Your task to perform on an android device: toggle javascript in the chrome app Image 0: 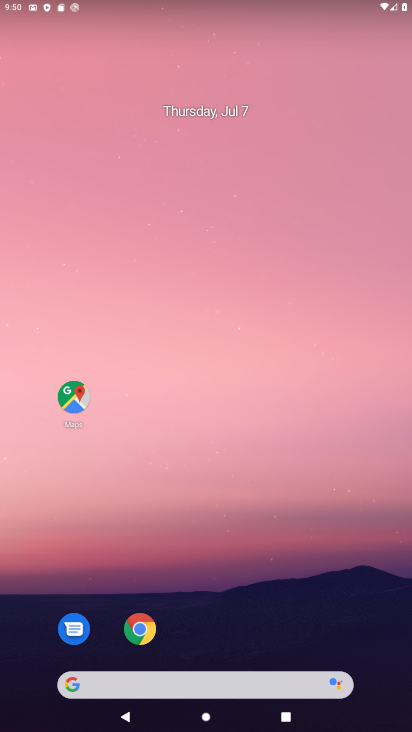
Step 0: drag from (310, 635) to (308, 139)
Your task to perform on an android device: toggle javascript in the chrome app Image 1: 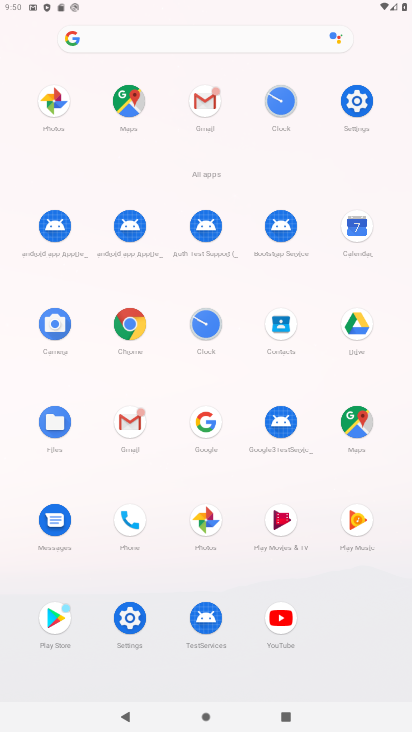
Step 1: click (122, 320)
Your task to perform on an android device: toggle javascript in the chrome app Image 2: 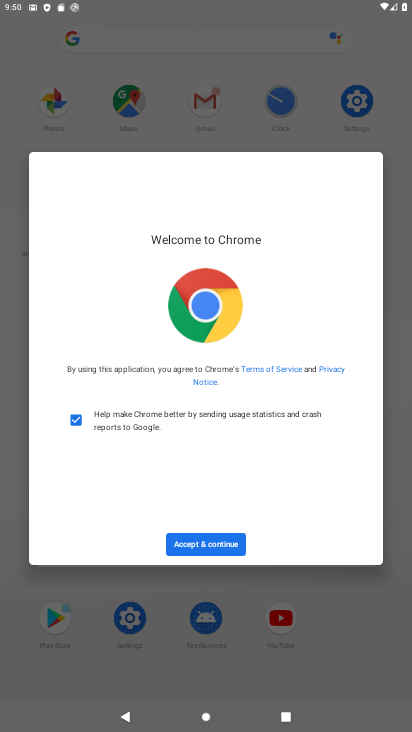
Step 2: click (206, 545)
Your task to perform on an android device: toggle javascript in the chrome app Image 3: 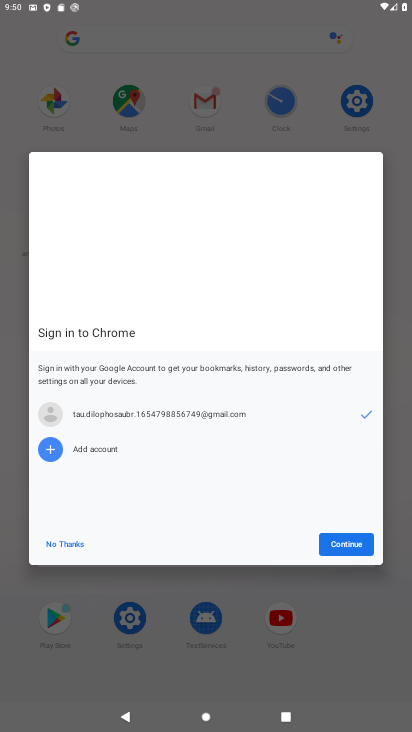
Step 3: click (367, 544)
Your task to perform on an android device: toggle javascript in the chrome app Image 4: 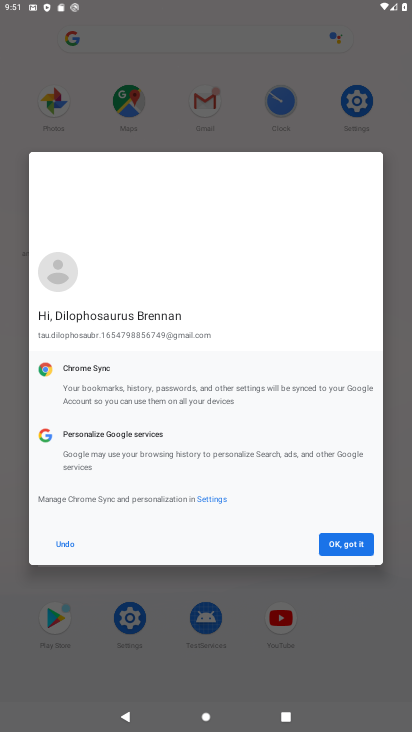
Step 4: click (336, 542)
Your task to perform on an android device: toggle javascript in the chrome app Image 5: 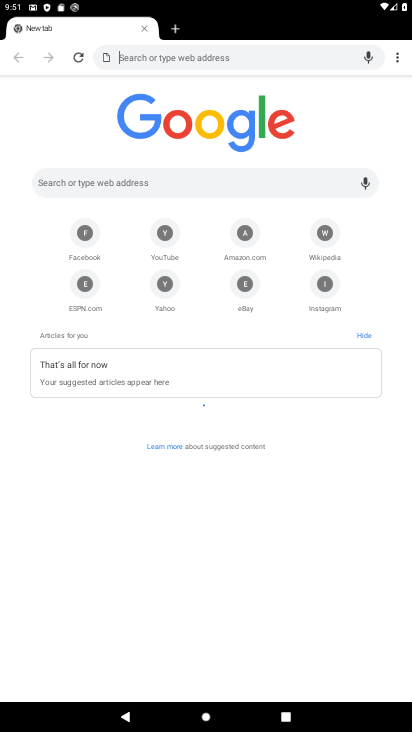
Step 5: drag from (401, 58) to (279, 267)
Your task to perform on an android device: toggle javascript in the chrome app Image 6: 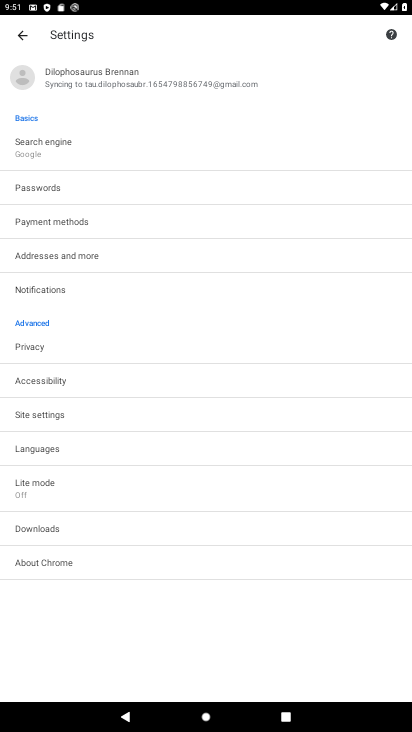
Step 6: click (39, 413)
Your task to perform on an android device: toggle javascript in the chrome app Image 7: 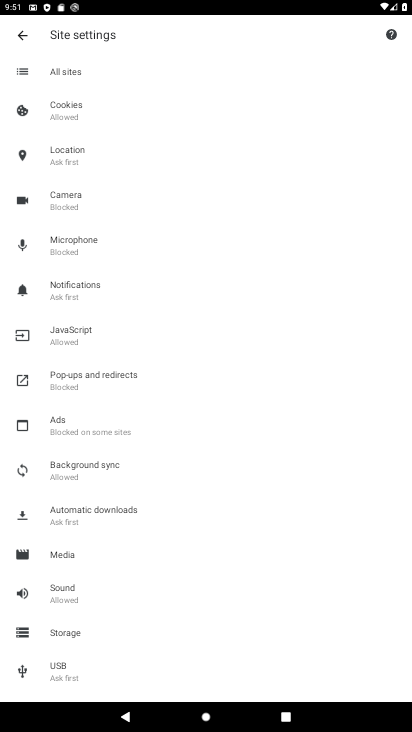
Step 7: click (65, 342)
Your task to perform on an android device: toggle javascript in the chrome app Image 8: 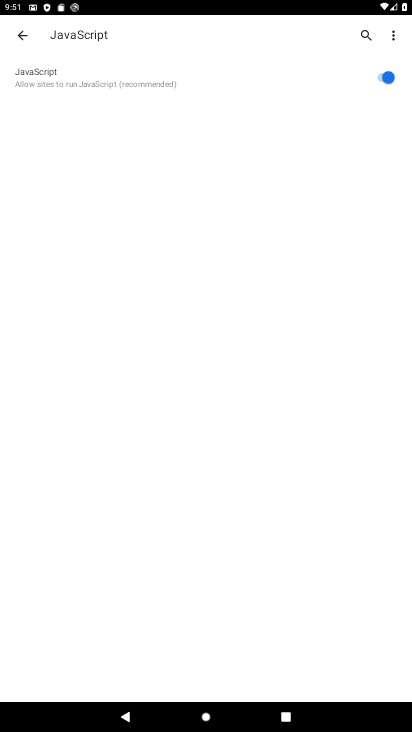
Step 8: click (385, 75)
Your task to perform on an android device: toggle javascript in the chrome app Image 9: 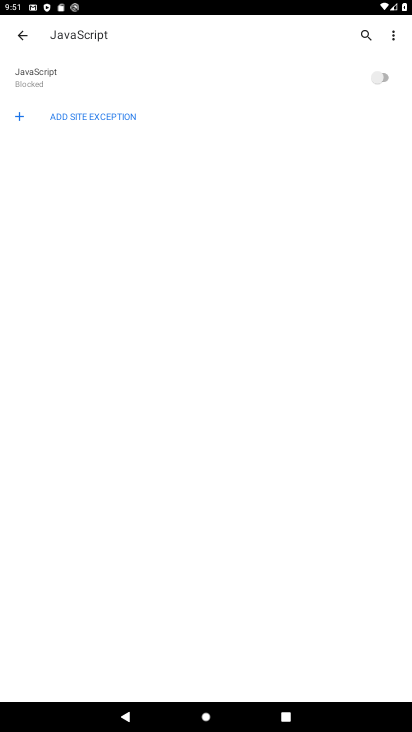
Step 9: task complete